Your task to perform on an android device: Open Google Chrome Image 0: 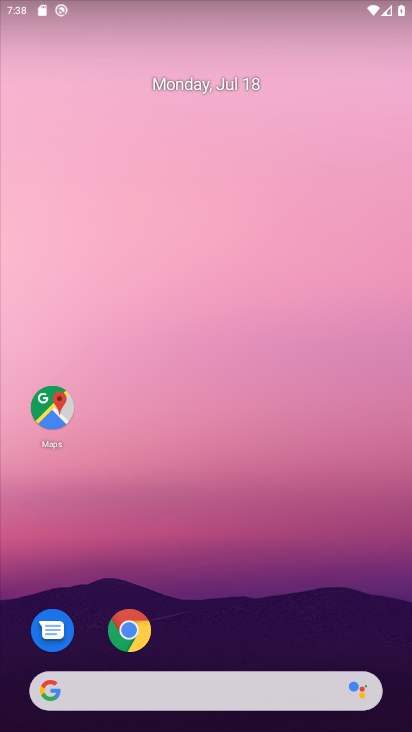
Step 0: drag from (198, 589) to (196, 253)
Your task to perform on an android device: Open Google Chrome Image 1: 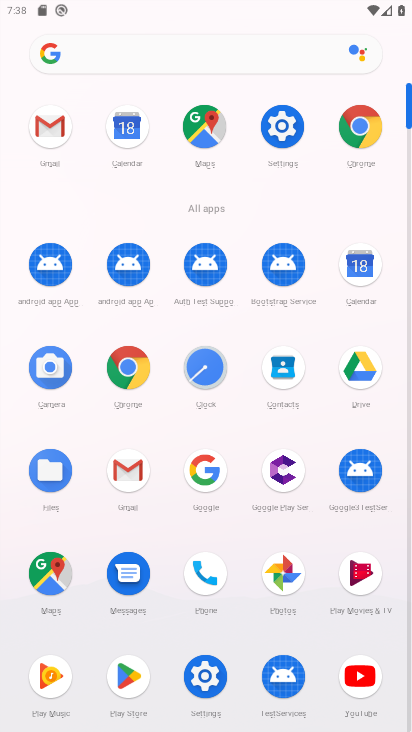
Step 1: click (124, 385)
Your task to perform on an android device: Open Google Chrome Image 2: 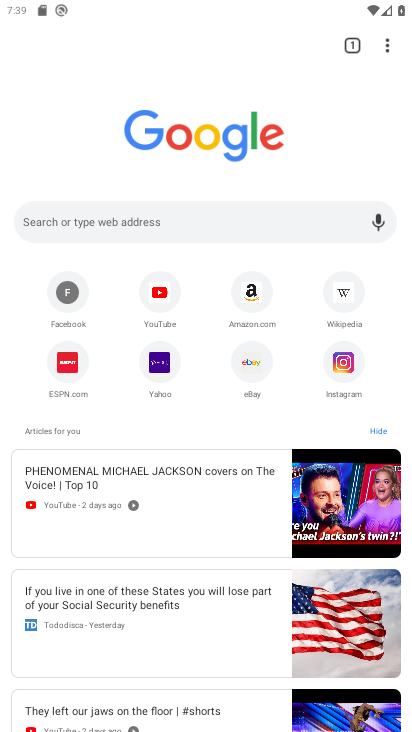
Step 2: task complete